Your task to perform on an android device: add a label to a message in the gmail app Image 0: 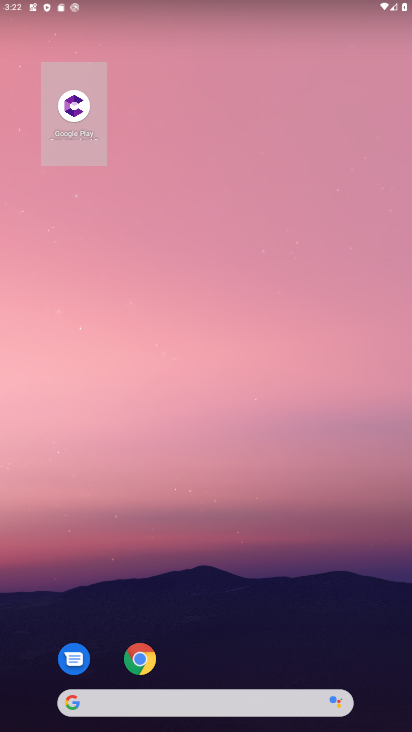
Step 0: drag from (17, 675) to (123, 192)
Your task to perform on an android device: add a label to a message in the gmail app Image 1: 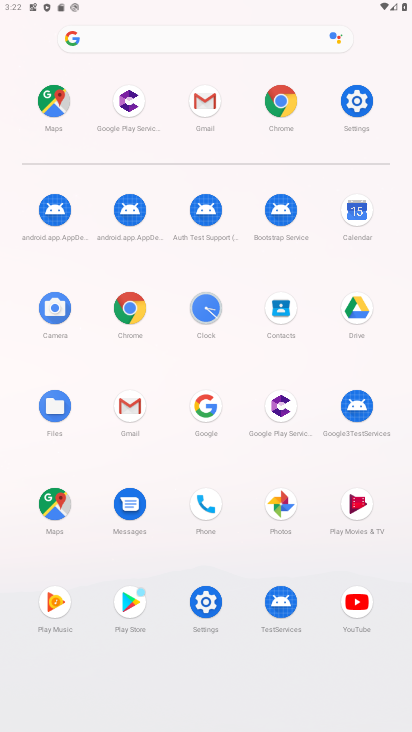
Step 1: click (126, 408)
Your task to perform on an android device: add a label to a message in the gmail app Image 2: 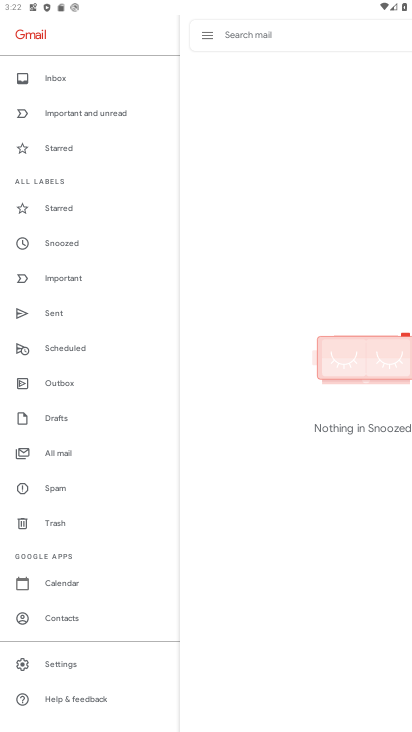
Step 2: click (59, 78)
Your task to perform on an android device: add a label to a message in the gmail app Image 3: 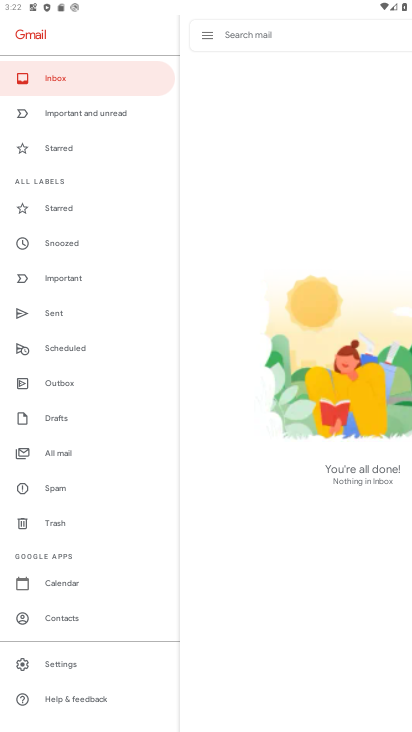
Step 3: task complete